Your task to perform on an android device: toggle show notifications on the lock screen Image 0: 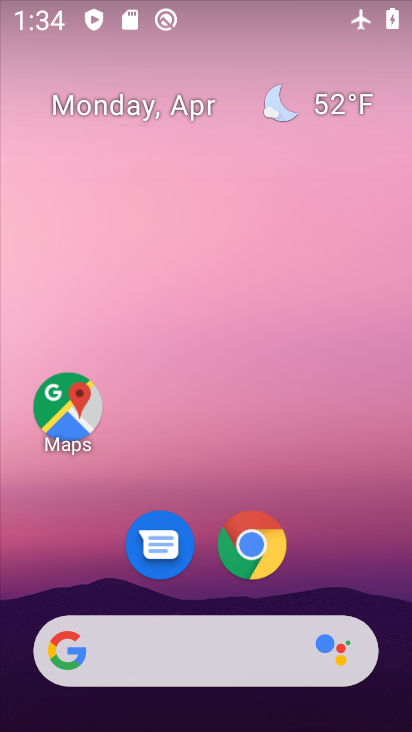
Step 0: drag from (227, 668) to (215, 259)
Your task to perform on an android device: toggle show notifications on the lock screen Image 1: 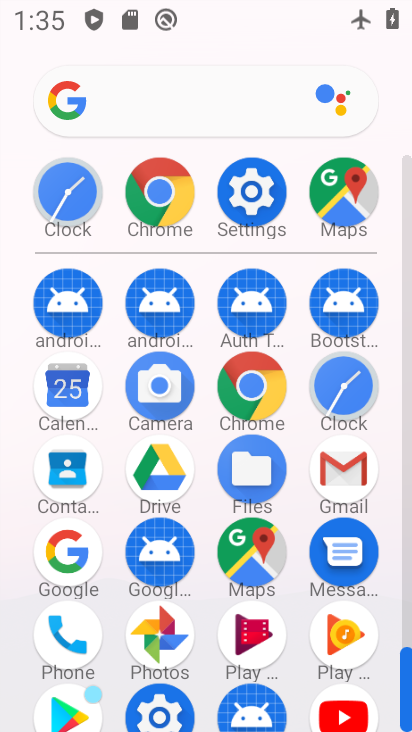
Step 1: click (252, 183)
Your task to perform on an android device: toggle show notifications on the lock screen Image 2: 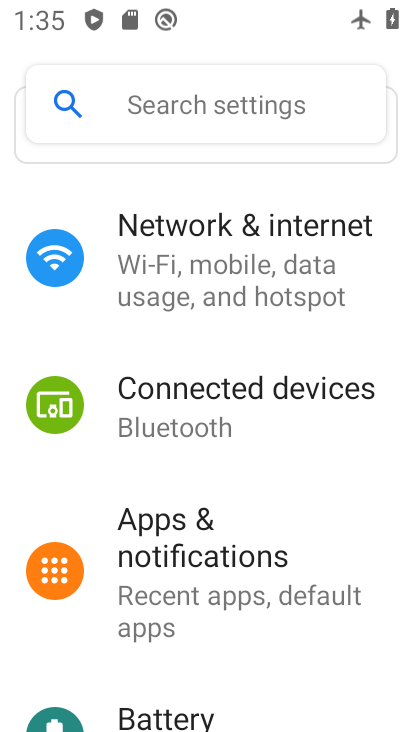
Step 2: click (196, 557)
Your task to perform on an android device: toggle show notifications on the lock screen Image 3: 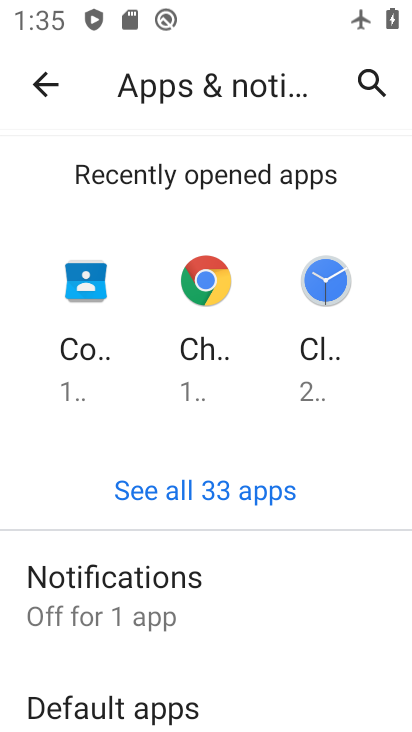
Step 3: click (163, 580)
Your task to perform on an android device: toggle show notifications on the lock screen Image 4: 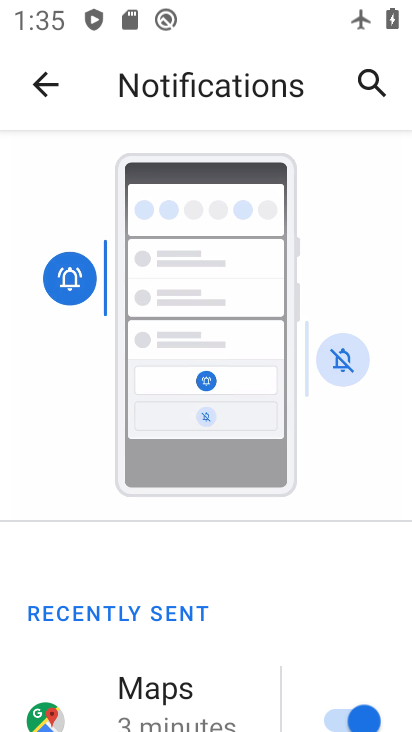
Step 4: drag from (175, 702) to (169, 316)
Your task to perform on an android device: toggle show notifications on the lock screen Image 5: 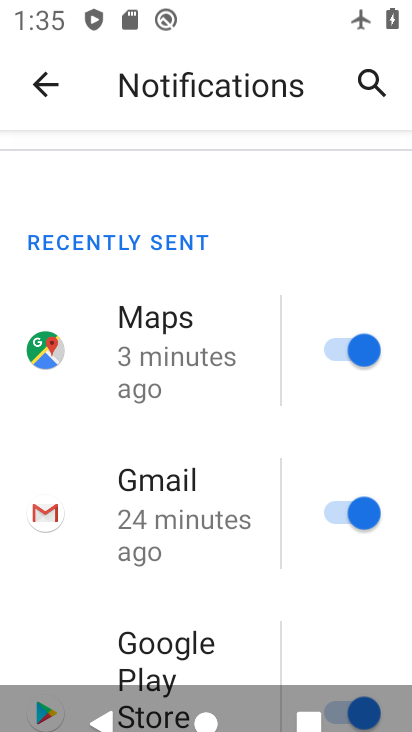
Step 5: drag from (186, 622) to (189, 203)
Your task to perform on an android device: toggle show notifications on the lock screen Image 6: 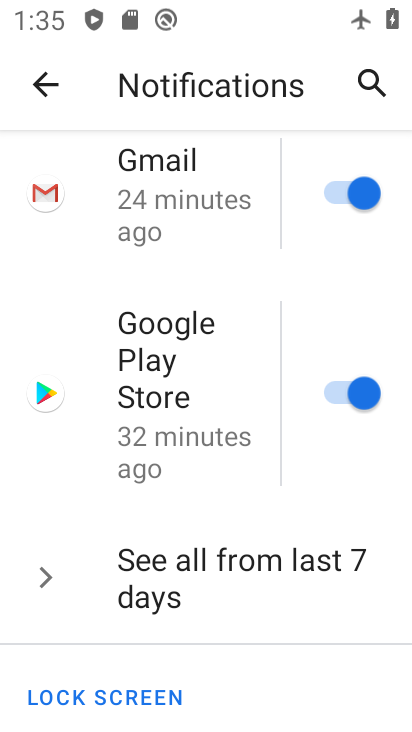
Step 6: drag from (203, 682) to (187, 300)
Your task to perform on an android device: toggle show notifications on the lock screen Image 7: 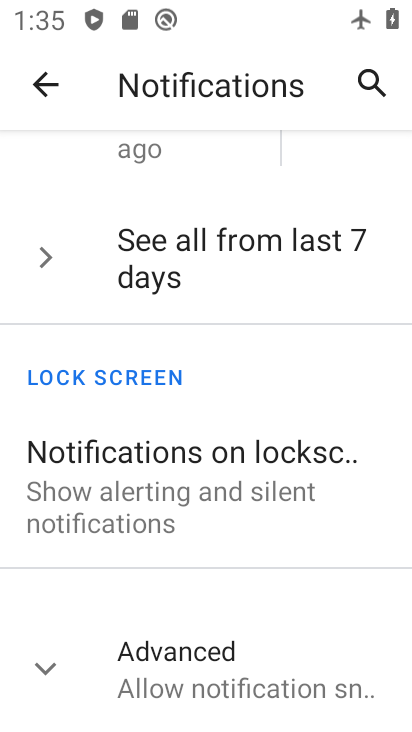
Step 7: click (139, 488)
Your task to perform on an android device: toggle show notifications on the lock screen Image 8: 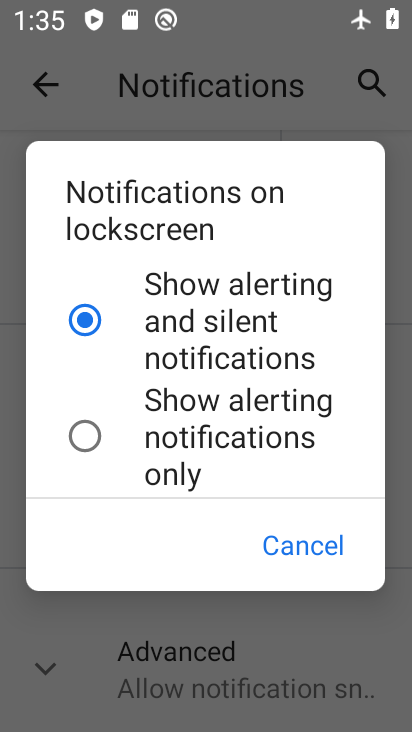
Step 8: click (91, 427)
Your task to perform on an android device: toggle show notifications on the lock screen Image 9: 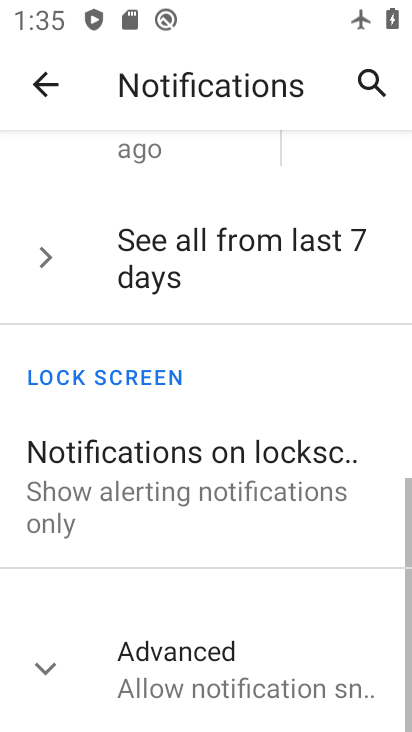
Step 9: task complete